Your task to perform on an android device: move a message to another label in the gmail app Image 0: 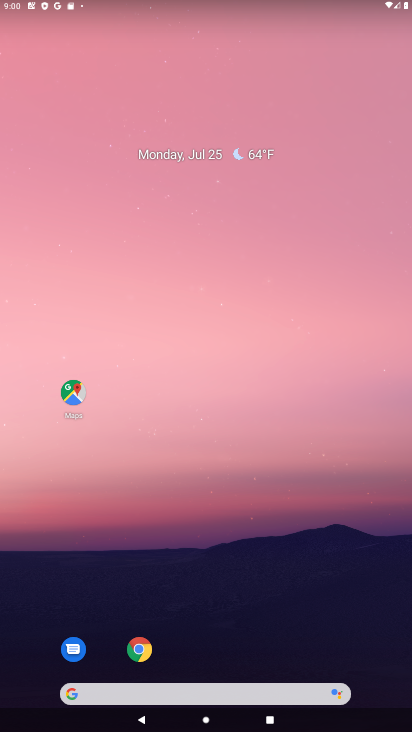
Step 0: drag from (230, 634) to (153, 12)
Your task to perform on an android device: move a message to another label in the gmail app Image 1: 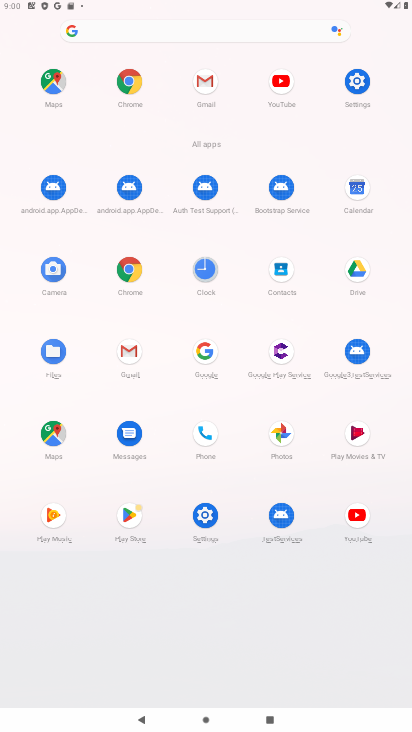
Step 1: click (125, 361)
Your task to perform on an android device: move a message to another label in the gmail app Image 2: 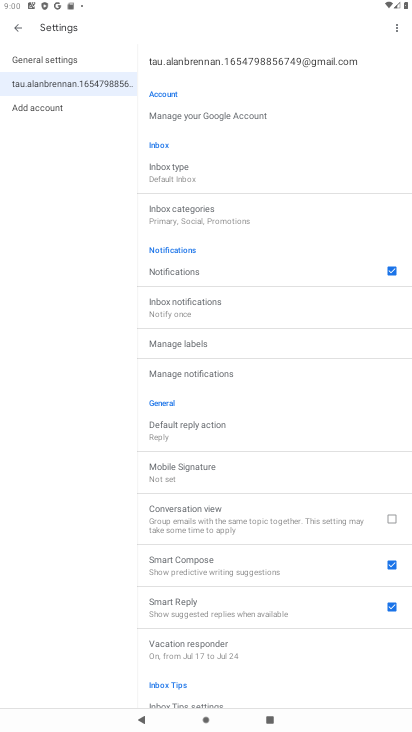
Step 2: click (12, 19)
Your task to perform on an android device: move a message to another label in the gmail app Image 3: 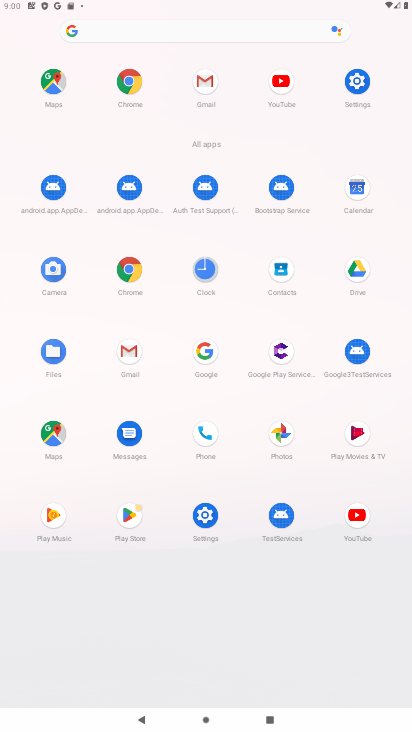
Step 3: click (132, 349)
Your task to perform on an android device: move a message to another label in the gmail app Image 4: 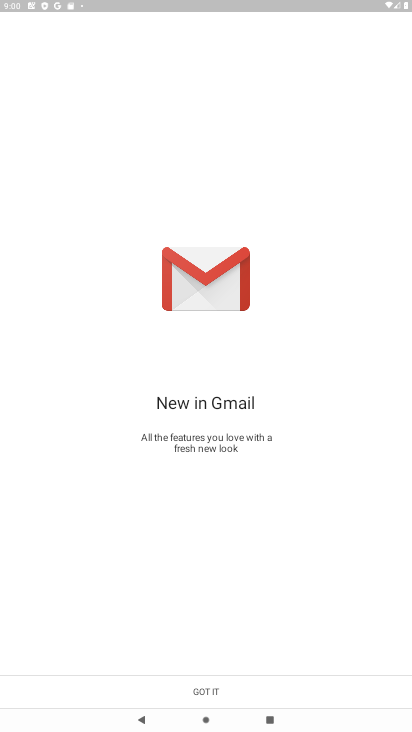
Step 4: click (247, 690)
Your task to perform on an android device: move a message to another label in the gmail app Image 5: 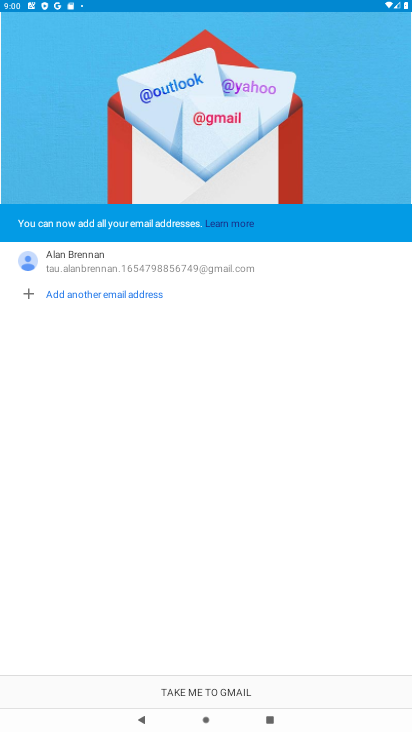
Step 5: click (189, 692)
Your task to perform on an android device: move a message to another label in the gmail app Image 6: 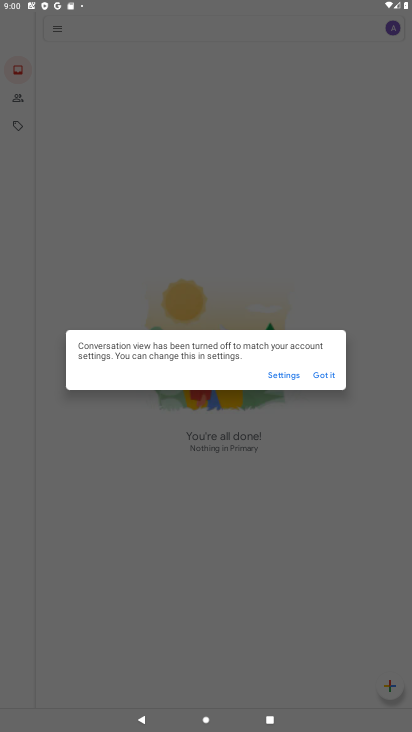
Step 6: click (332, 378)
Your task to perform on an android device: move a message to another label in the gmail app Image 7: 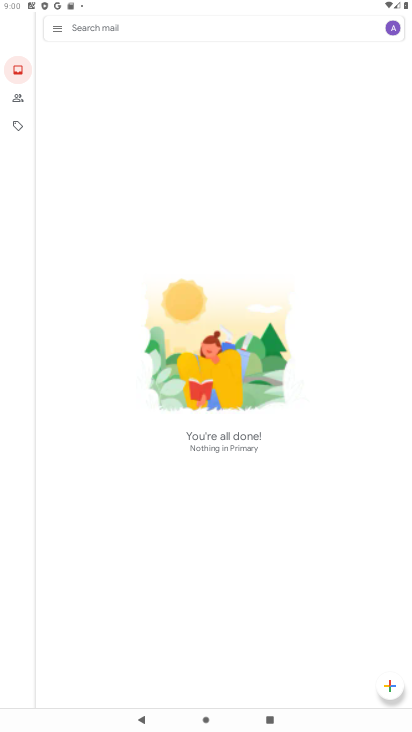
Step 7: click (53, 33)
Your task to perform on an android device: move a message to another label in the gmail app Image 8: 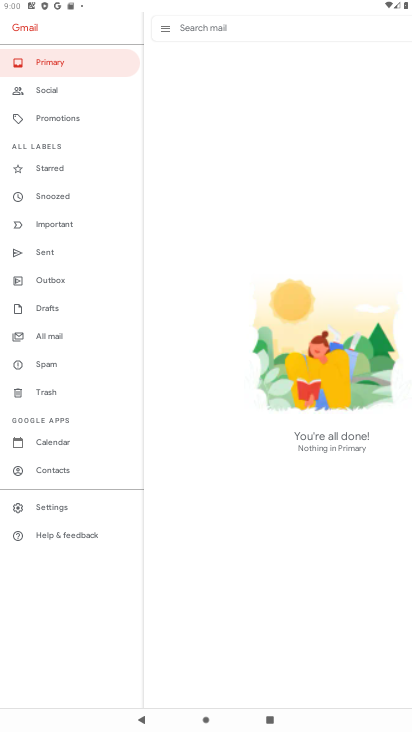
Step 8: click (53, 334)
Your task to perform on an android device: move a message to another label in the gmail app Image 9: 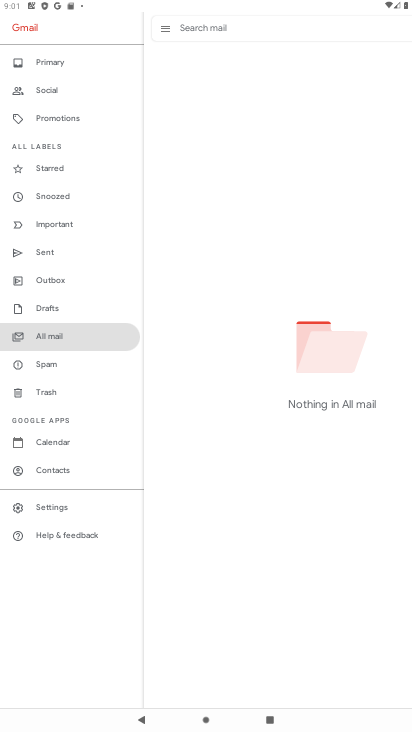
Step 9: task complete